Your task to perform on an android device: turn on translation in the chrome app Image 0: 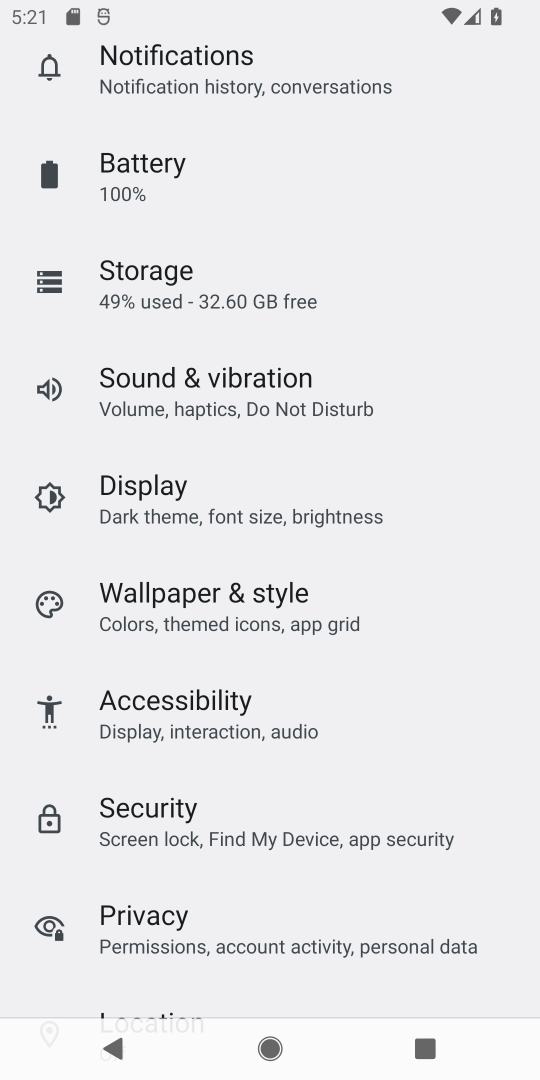
Step 0: press home button
Your task to perform on an android device: turn on translation in the chrome app Image 1: 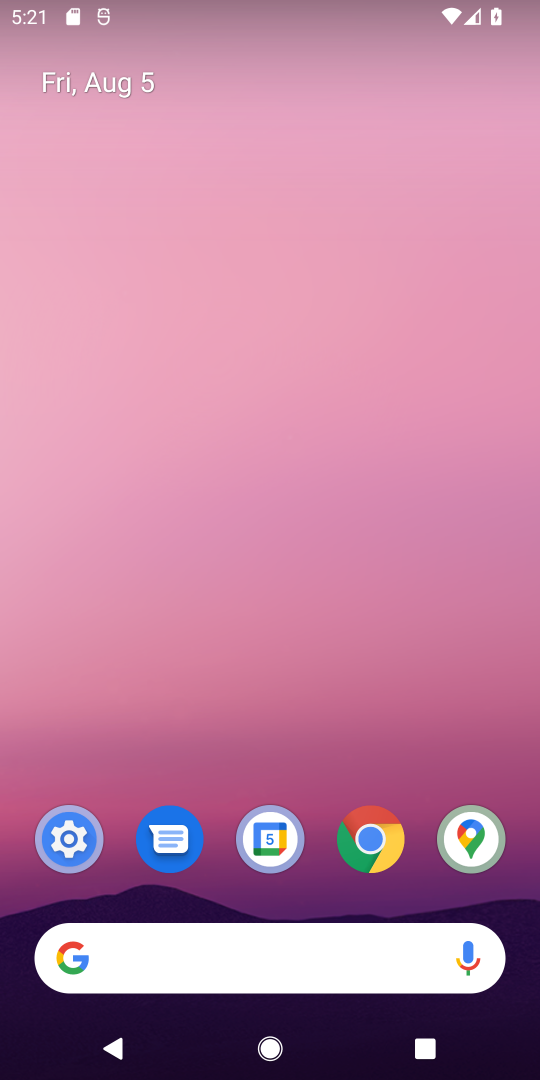
Step 1: click (355, 823)
Your task to perform on an android device: turn on translation in the chrome app Image 2: 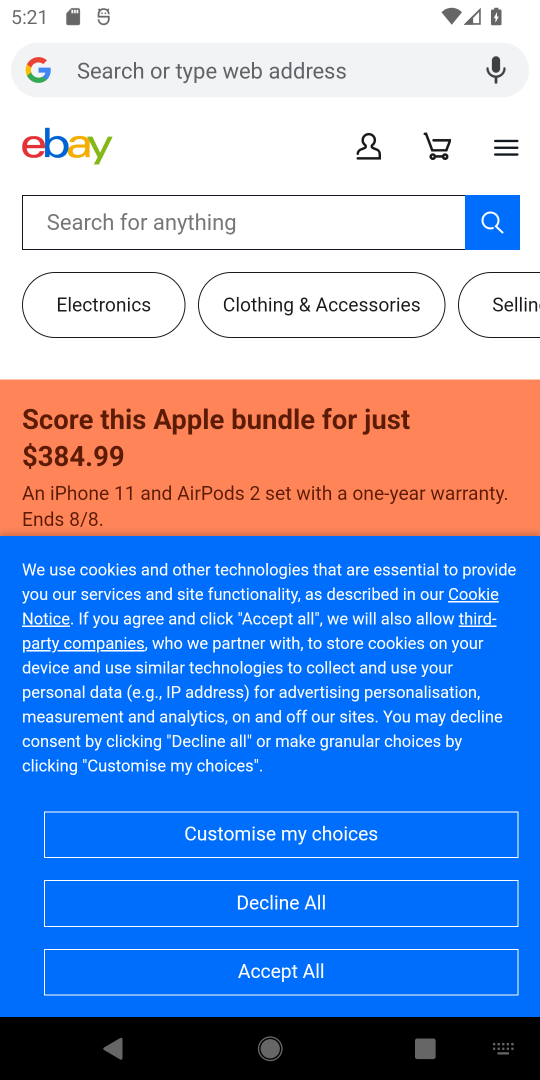
Step 2: click (419, 65)
Your task to perform on an android device: turn on translation in the chrome app Image 3: 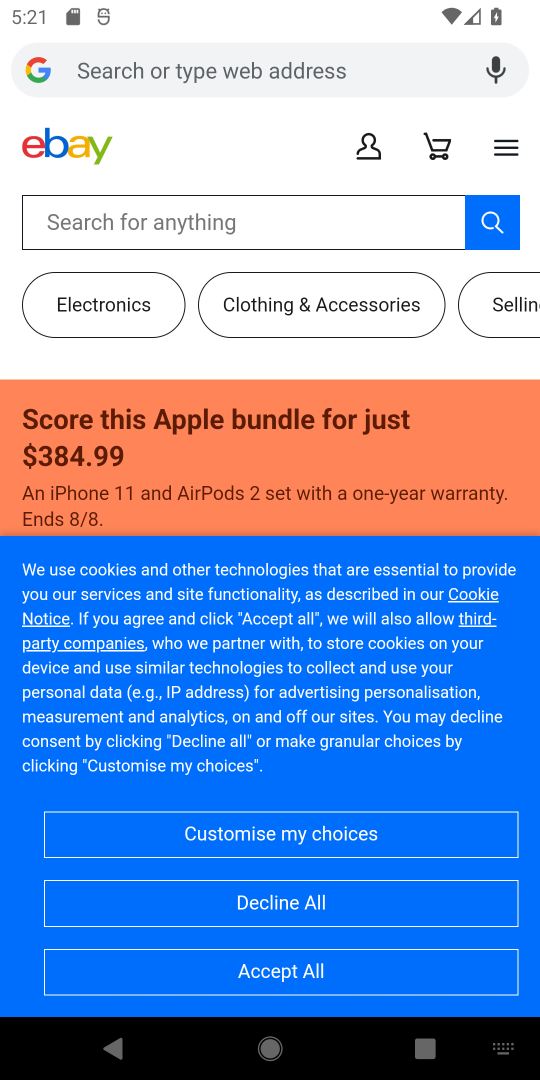
Step 3: click (499, 70)
Your task to perform on an android device: turn on translation in the chrome app Image 4: 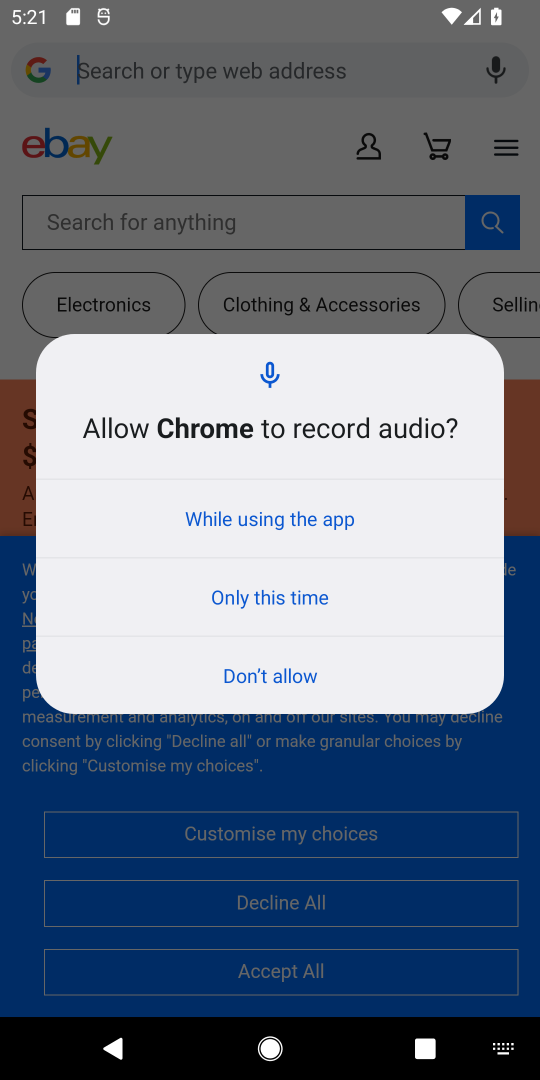
Step 4: click (270, 677)
Your task to perform on an android device: turn on translation in the chrome app Image 5: 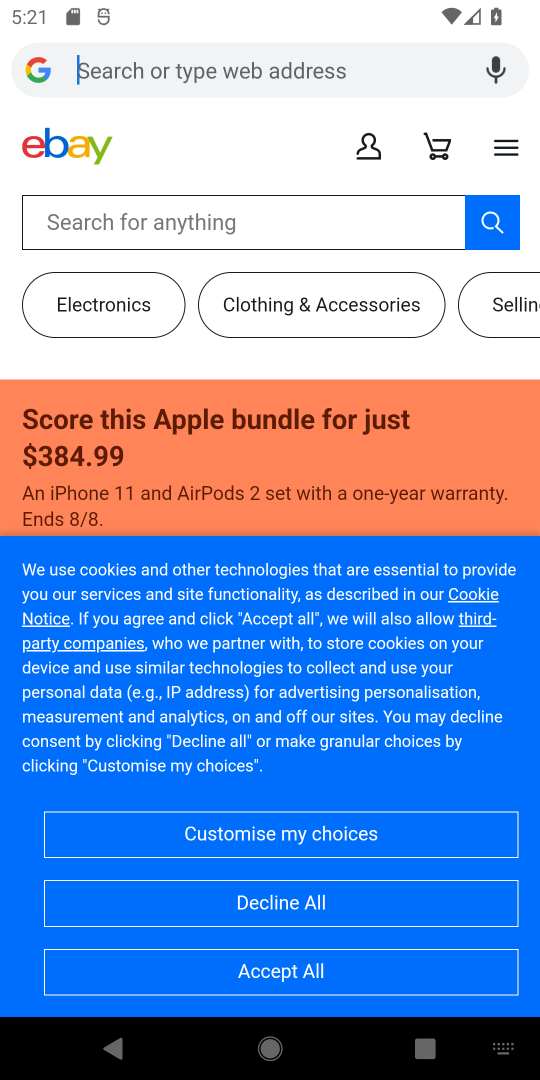
Step 5: drag from (334, 330) to (336, 959)
Your task to perform on an android device: turn on translation in the chrome app Image 6: 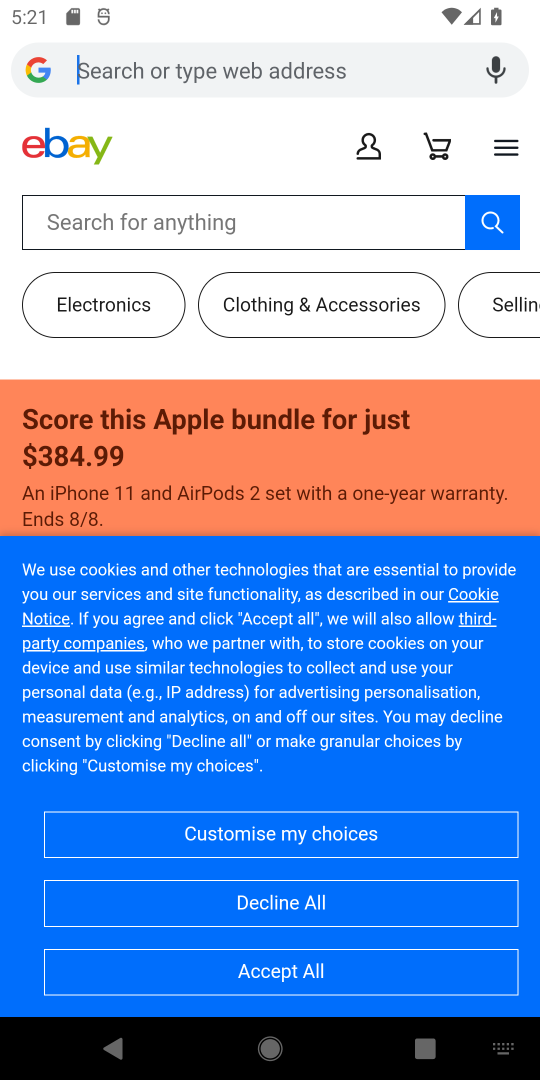
Step 6: press back button
Your task to perform on an android device: turn on translation in the chrome app Image 7: 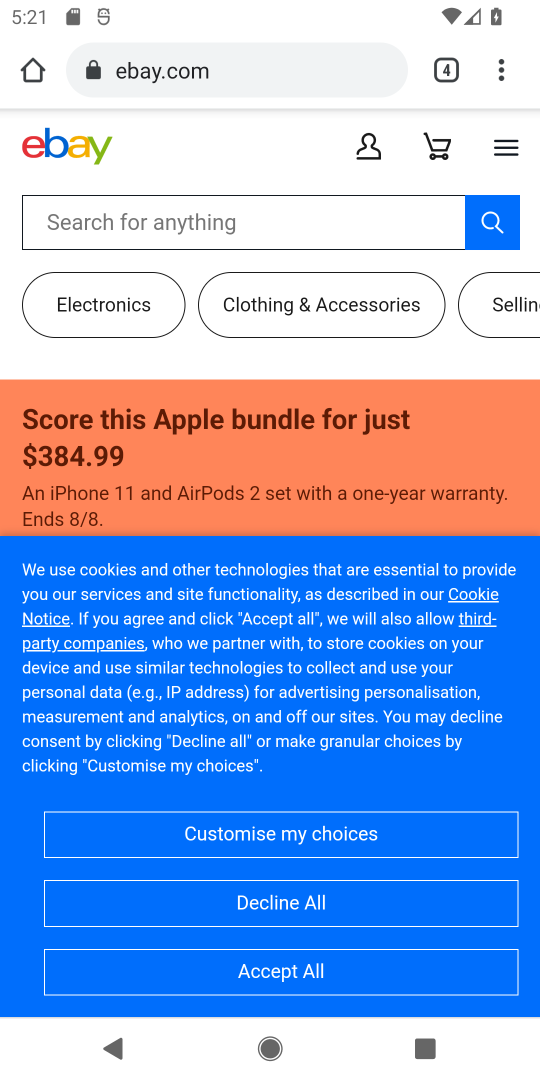
Step 7: click (484, 84)
Your task to perform on an android device: turn on translation in the chrome app Image 8: 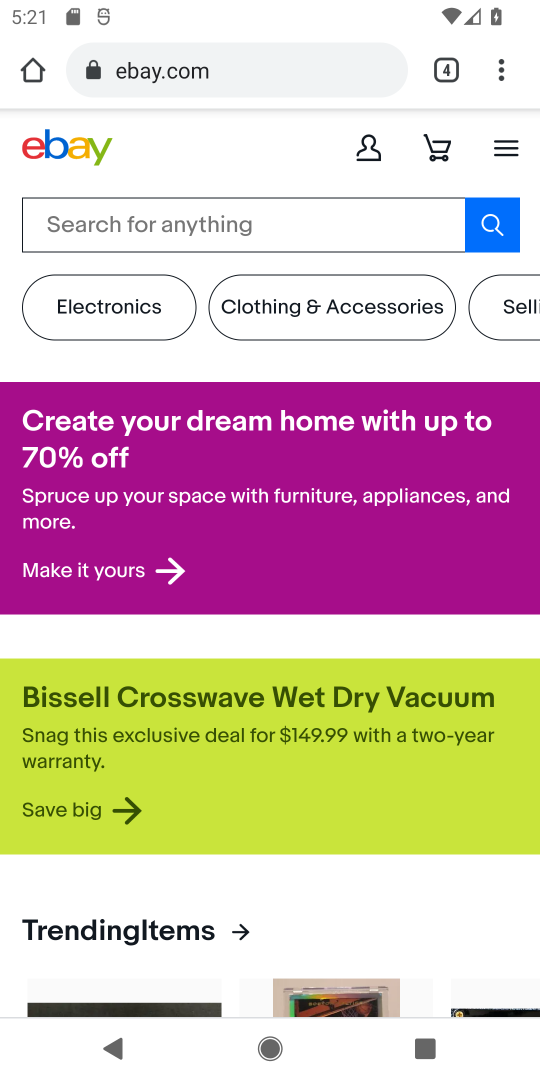
Step 8: drag from (499, 69) to (287, 842)
Your task to perform on an android device: turn on translation in the chrome app Image 9: 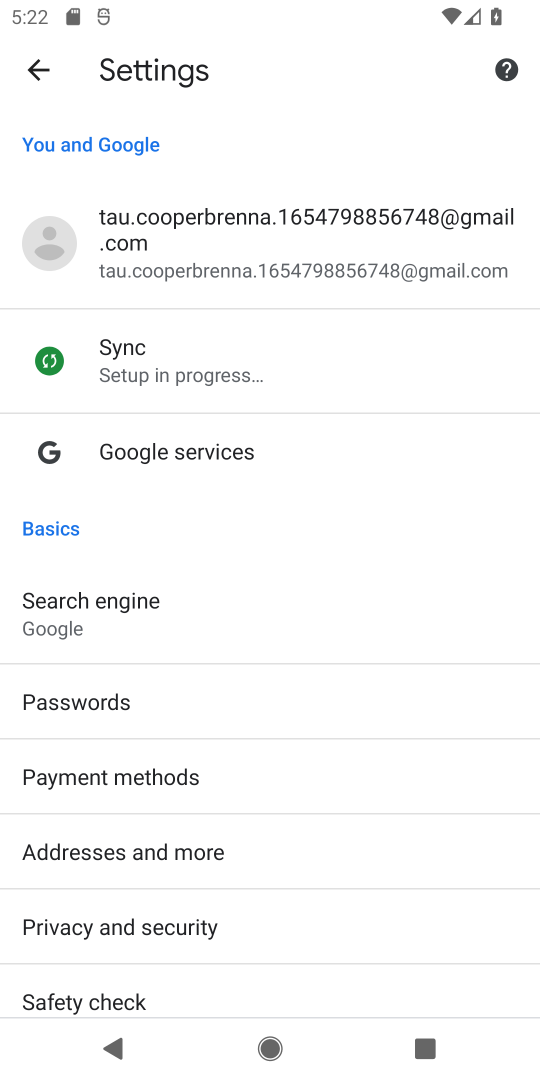
Step 9: drag from (280, 909) to (318, 488)
Your task to perform on an android device: turn on translation in the chrome app Image 10: 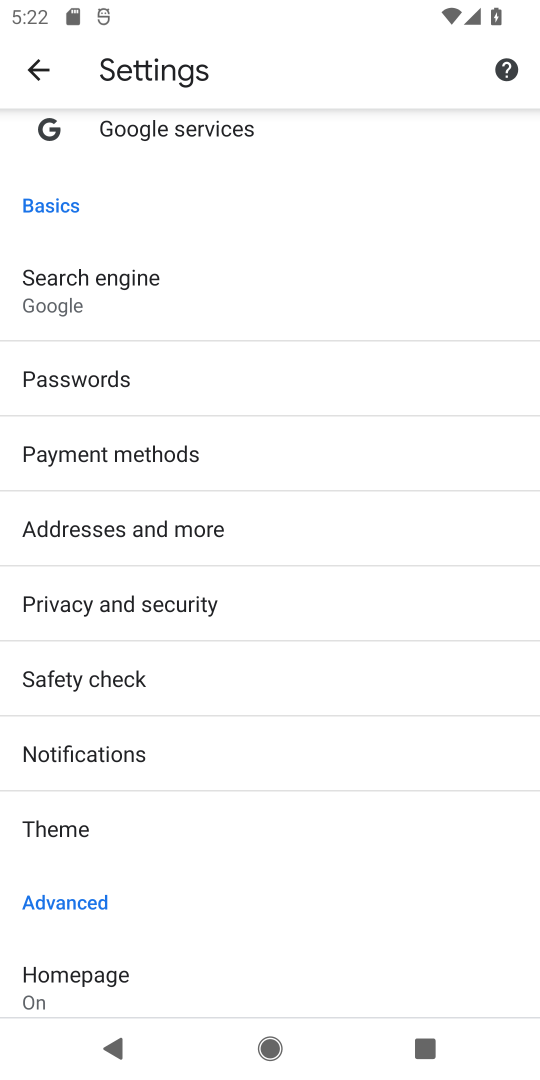
Step 10: drag from (255, 838) to (257, 340)
Your task to perform on an android device: turn on translation in the chrome app Image 11: 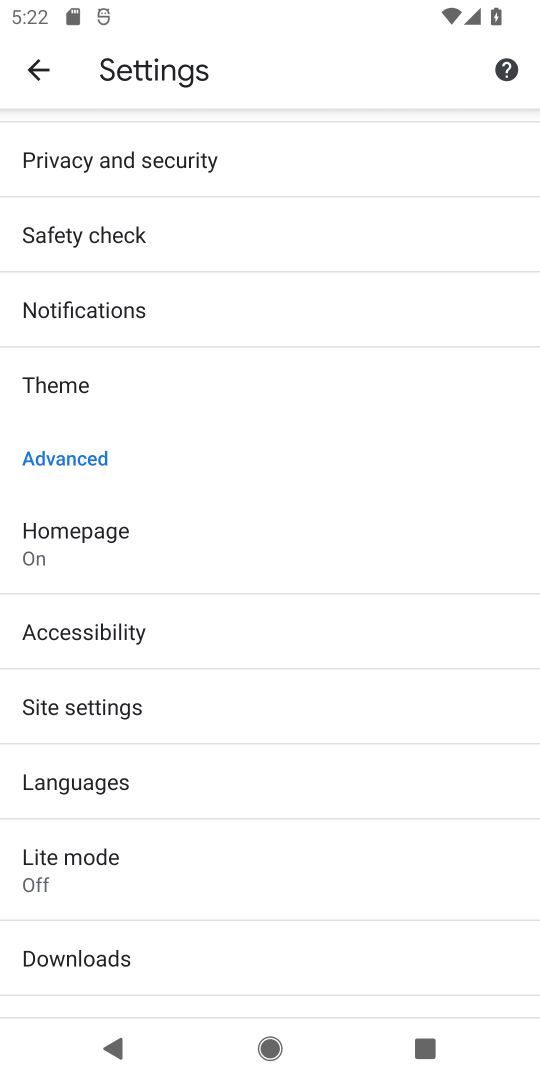
Step 11: click (171, 784)
Your task to perform on an android device: turn on translation in the chrome app Image 12: 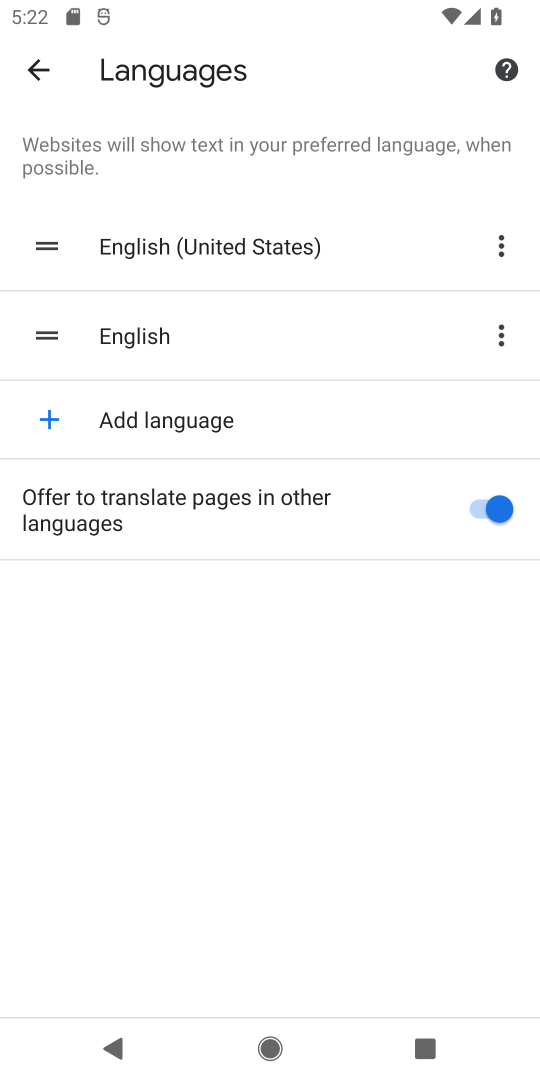
Step 12: task complete